Your task to perform on an android device: Is it going to rain today? Image 0: 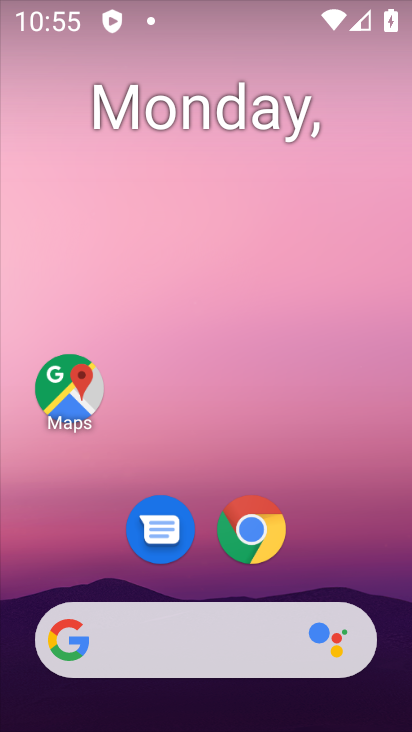
Step 0: drag from (209, 576) to (185, 149)
Your task to perform on an android device: Is it going to rain today? Image 1: 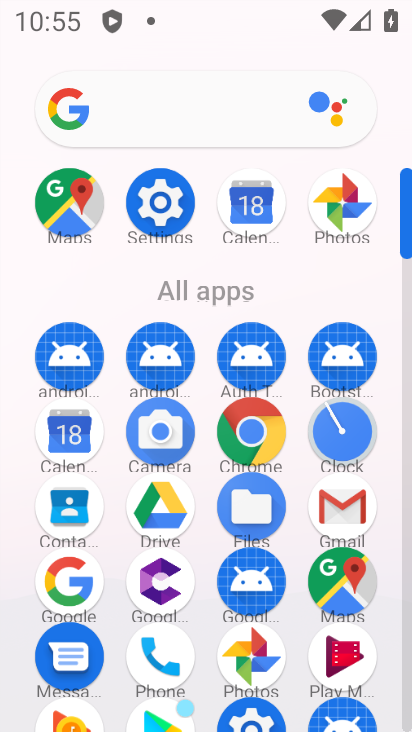
Step 1: click (75, 586)
Your task to perform on an android device: Is it going to rain today? Image 2: 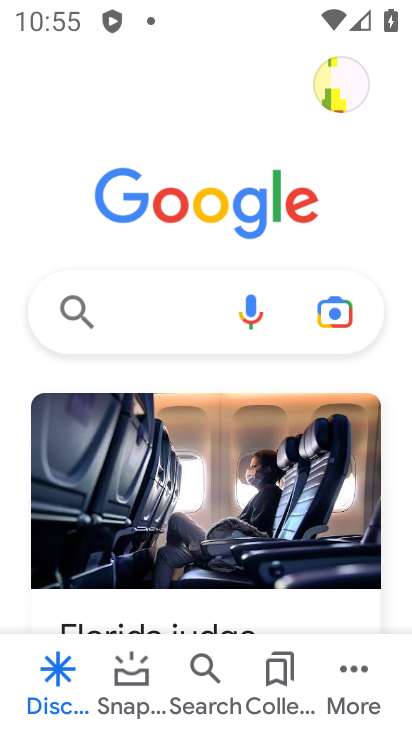
Step 2: drag from (202, 137) to (198, 541)
Your task to perform on an android device: Is it going to rain today? Image 3: 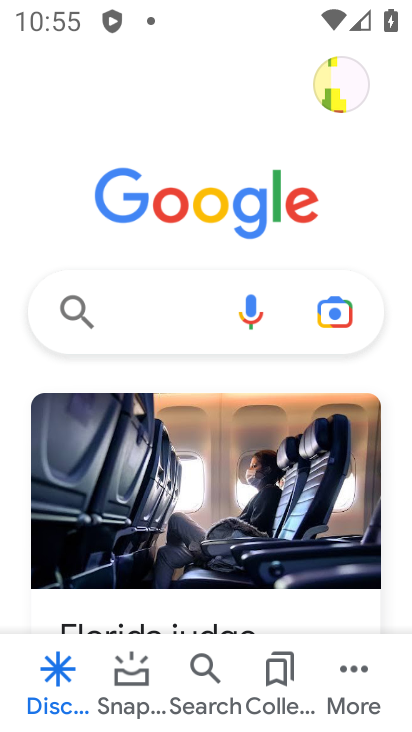
Step 3: drag from (168, 368) to (210, 120)
Your task to perform on an android device: Is it going to rain today? Image 4: 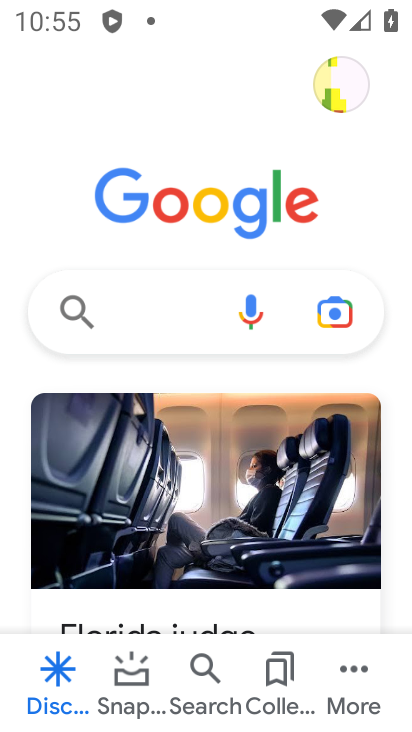
Step 4: drag from (200, 244) to (207, 550)
Your task to perform on an android device: Is it going to rain today? Image 5: 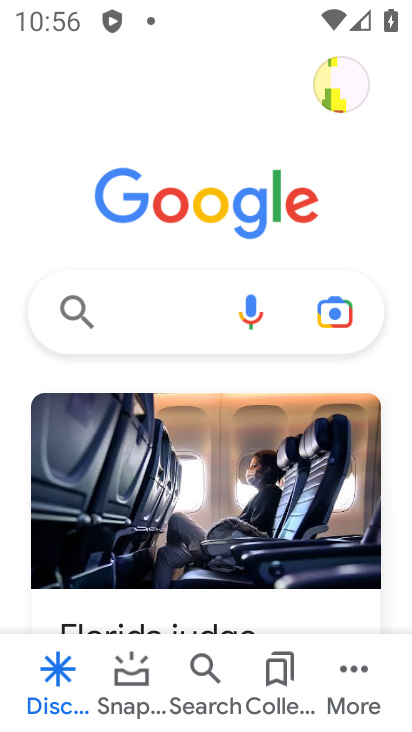
Step 5: drag from (185, 346) to (189, 83)
Your task to perform on an android device: Is it going to rain today? Image 6: 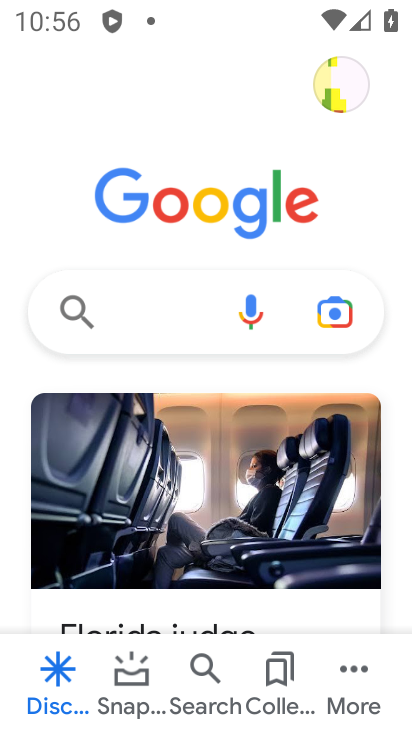
Step 6: drag from (289, 544) to (251, 189)
Your task to perform on an android device: Is it going to rain today? Image 7: 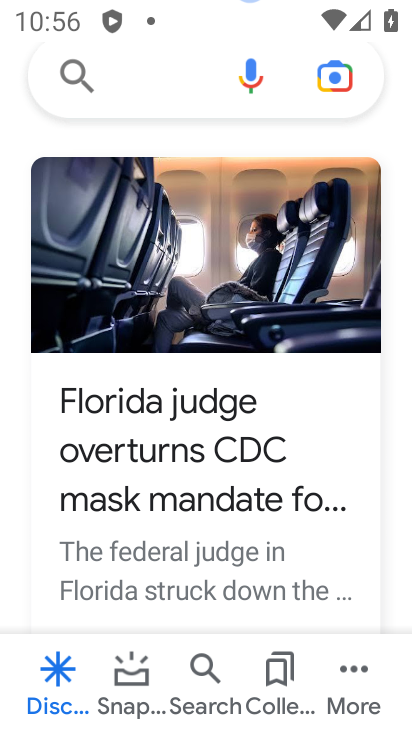
Step 7: drag from (203, 478) to (184, 516)
Your task to perform on an android device: Is it going to rain today? Image 8: 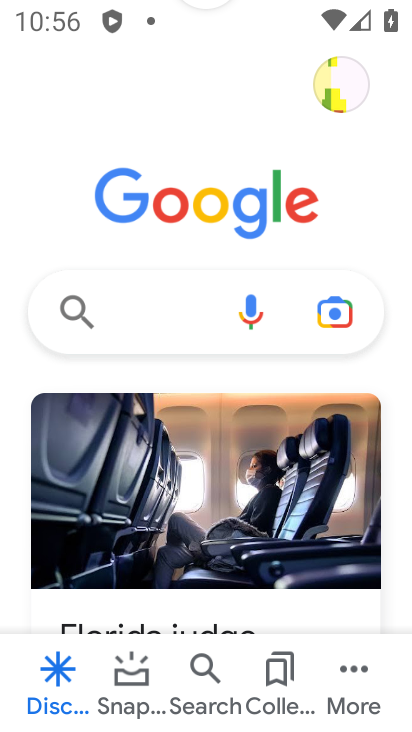
Step 8: drag from (179, 368) to (178, 551)
Your task to perform on an android device: Is it going to rain today? Image 9: 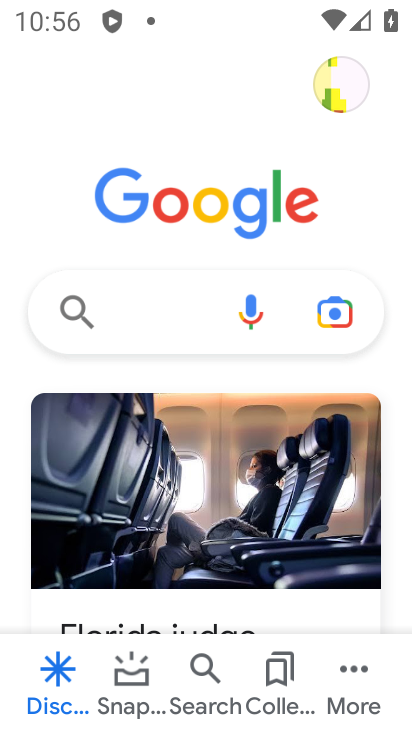
Step 9: drag from (172, 256) to (192, 506)
Your task to perform on an android device: Is it going to rain today? Image 10: 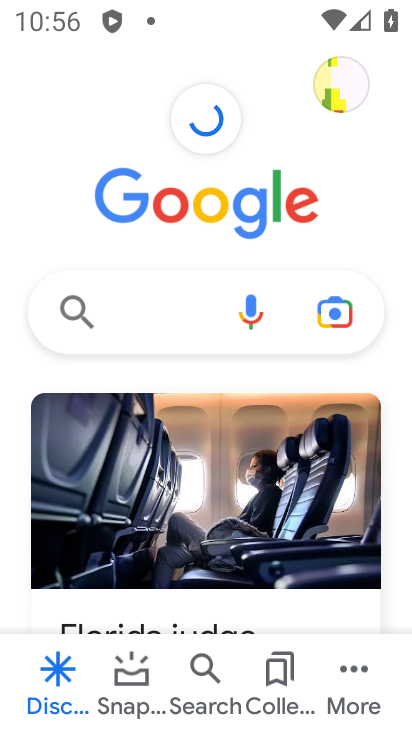
Step 10: click (54, 86)
Your task to perform on an android device: Is it going to rain today? Image 11: 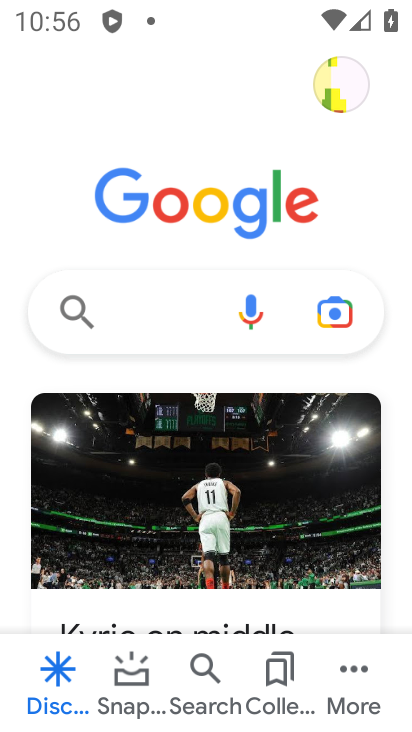
Step 11: click (57, 93)
Your task to perform on an android device: Is it going to rain today? Image 12: 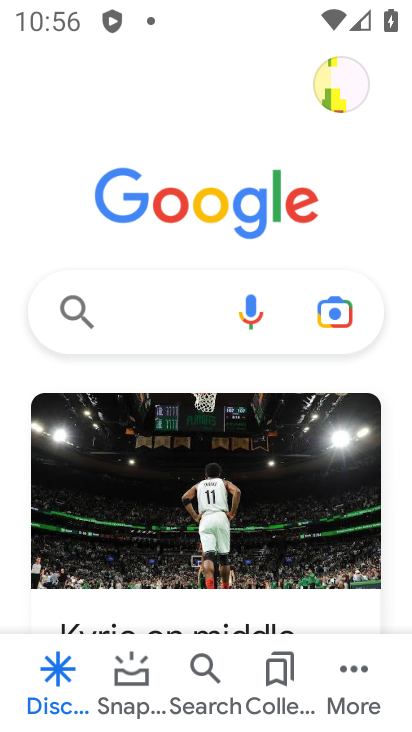
Step 12: click (50, 80)
Your task to perform on an android device: Is it going to rain today? Image 13: 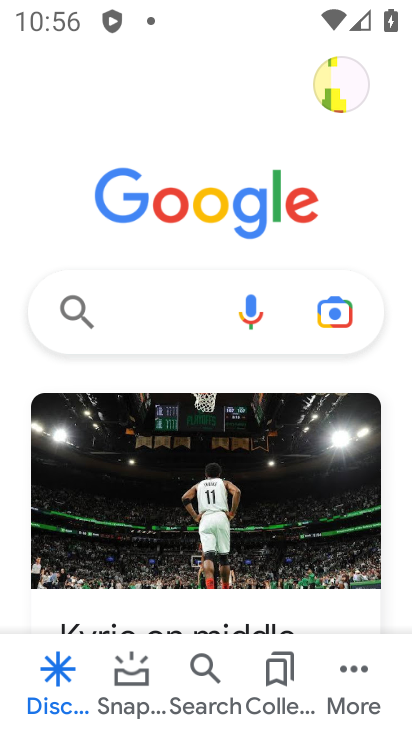
Step 13: click (49, 79)
Your task to perform on an android device: Is it going to rain today? Image 14: 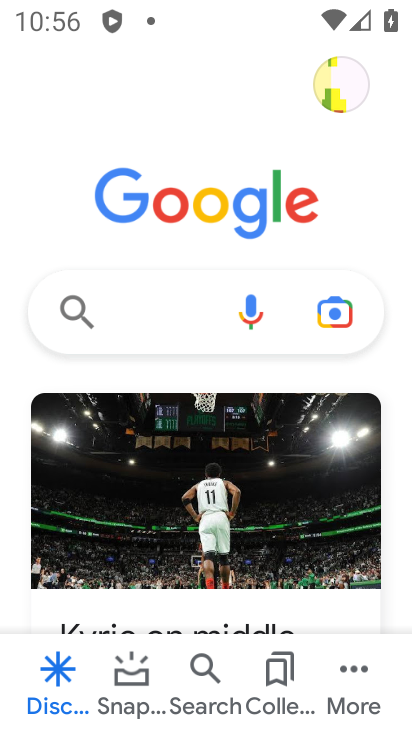
Step 14: click (49, 79)
Your task to perform on an android device: Is it going to rain today? Image 15: 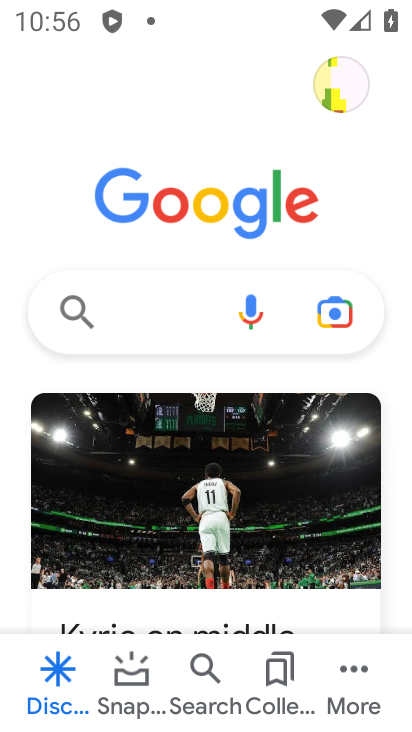
Step 15: click (49, 79)
Your task to perform on an android device: Is it going to rain today? Image 16: 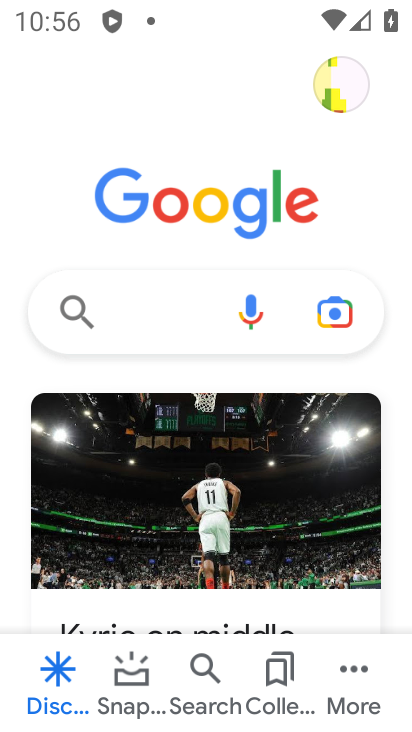
Step 16: click (49, 79)
Your task to perform on an android device: Is it going to rain today? Image 17: 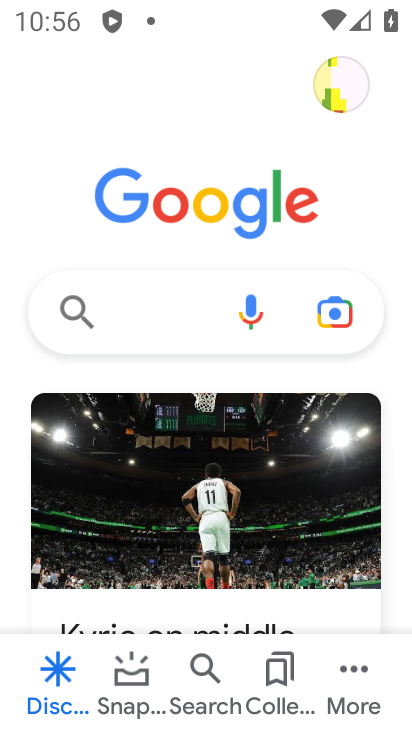
Step 17: click (42, 58)
Your task to perform on an android device: Is it going to rain today? Image 18: 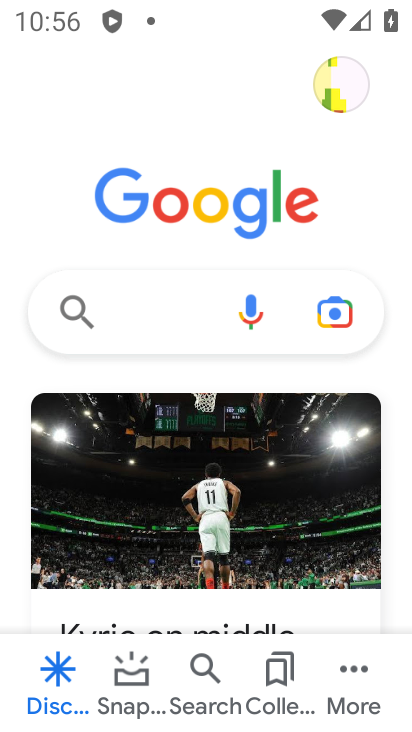
Step 18: click (26, 63)
Your task to perform on an android device: Is it going to rain today? Image 19: 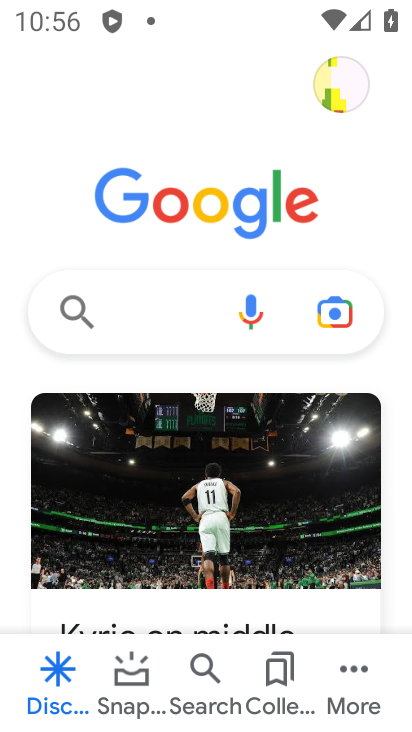
Step 19: drag from (87, 111) to (58, 81)
Your task to perform on an android device: Is it going to rain today? Image 20: 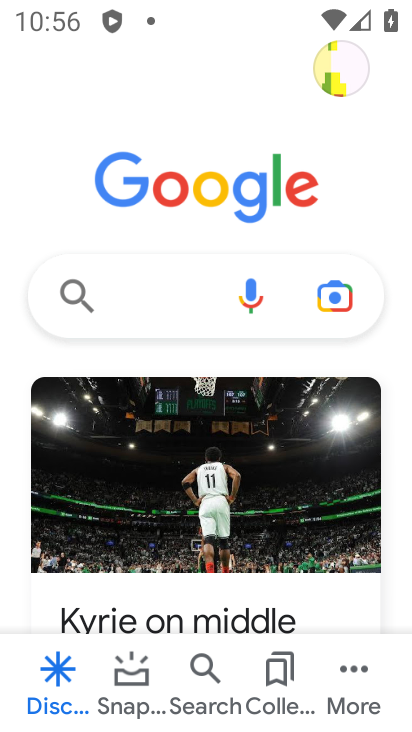
Step 20: click (67, 96)
Your task to perform on an android device: Is it going to rain today? Image 21: 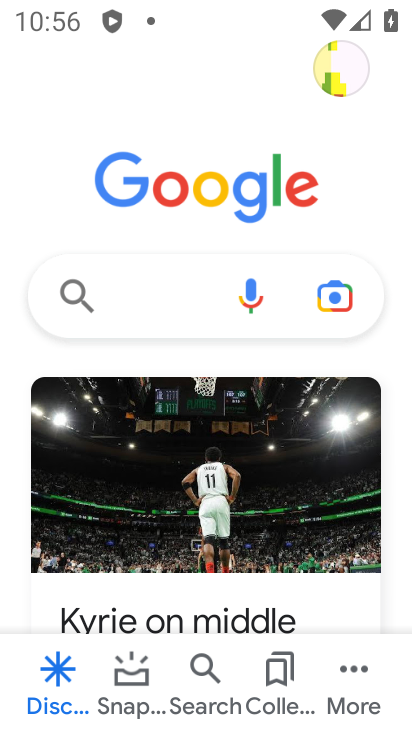
Step 21: click (178, 312)
Your task to perform on an android device: Is it going to rain today? Image 22: 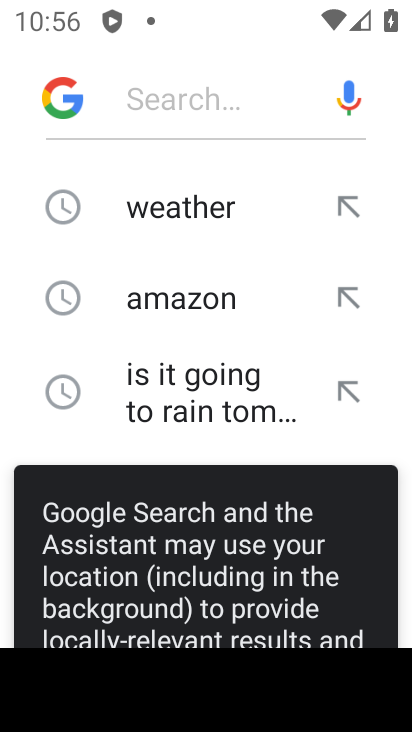
Step 22: click (198, 208)
Your task to perform on an android device: Is it going to rain today? Image 23: 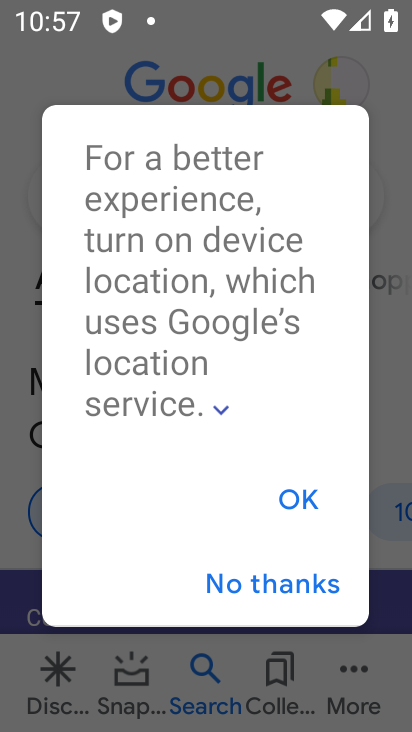
Step 23: click (283, 498)
Your task to perform on an android device: Is it going to rain today? Image 24: 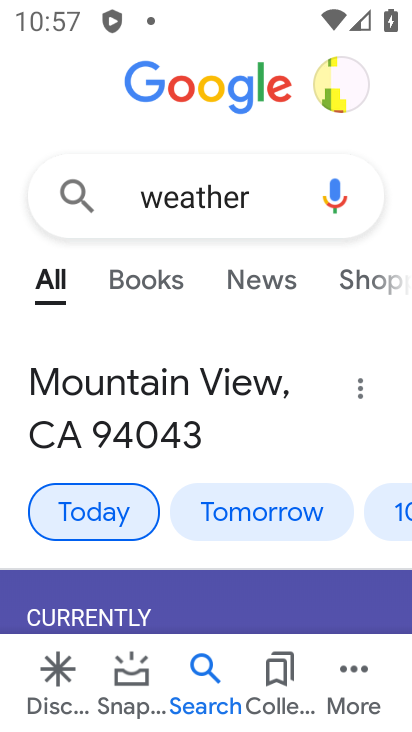
Step 24: task complete